Your task to perform on an android device: set an alarm Image 0: 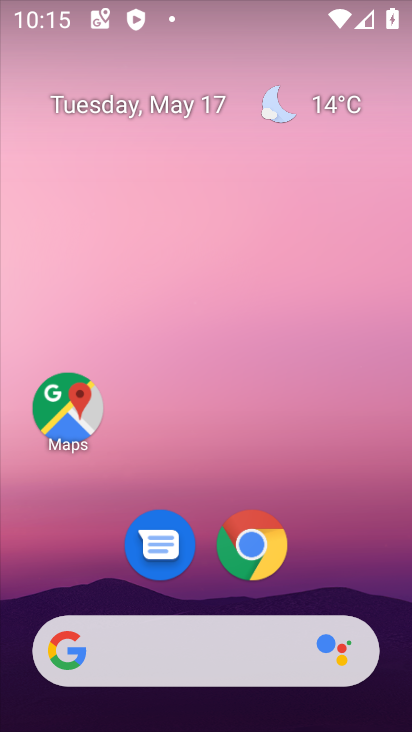
Step 0: drag from (322, 594) to (263, 96)
Your task to perform on an android device: set an alarm Image 1: 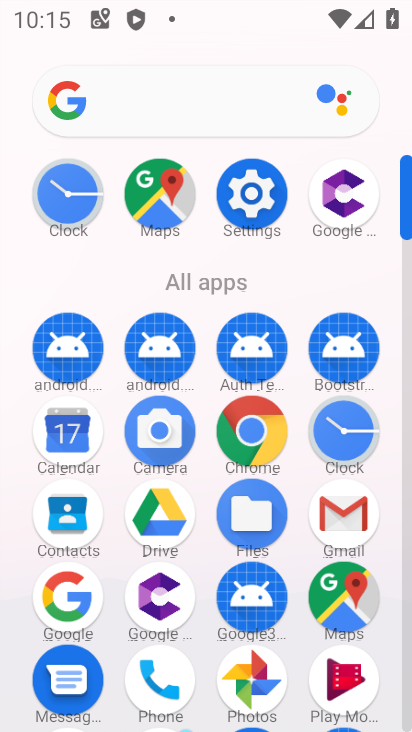
Step 1: click (356, 434)
Your task to perform on an android device: set an alarm Image 2: 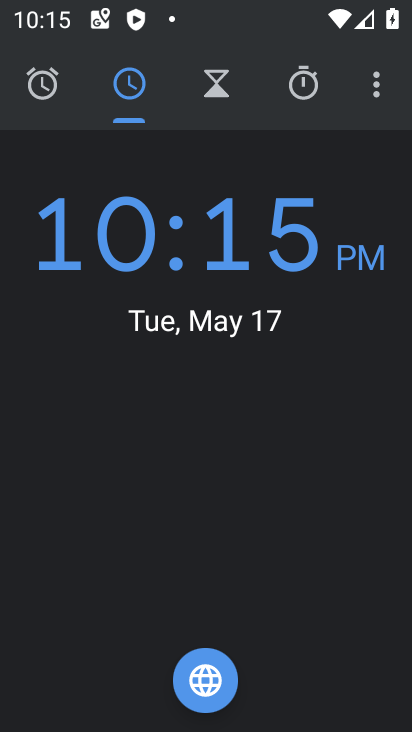
Step 2: click (46, 85)
Your task to perform on an android device: set an alarm Image 3: 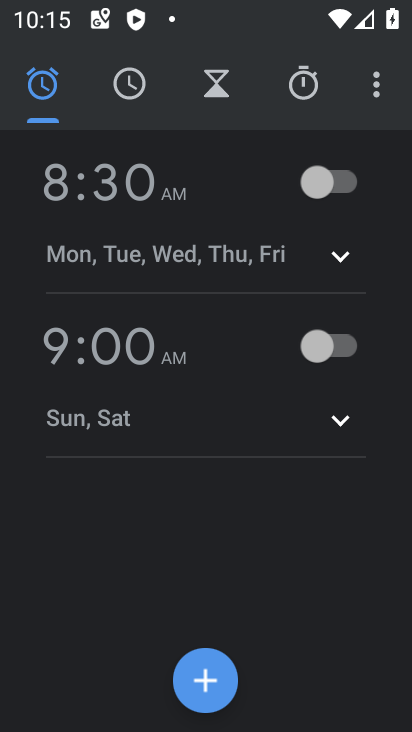
Step 3: click (339, 184)
Your task to perform on an android device: set an alarm Image 4: 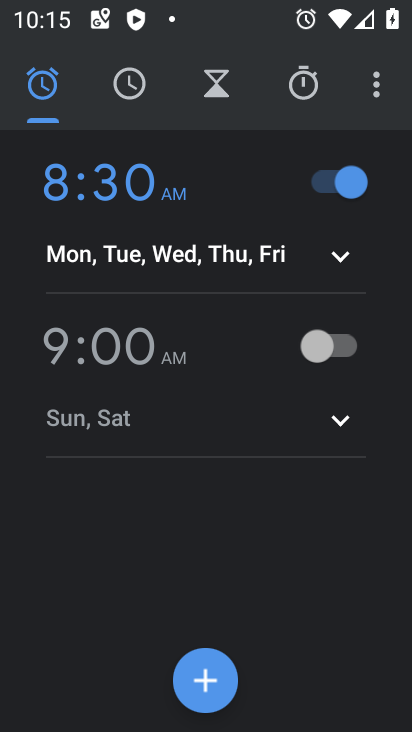
Step 4: task complete